Your task to perform on an android device: turn on data saver in the chrome app Image 0: 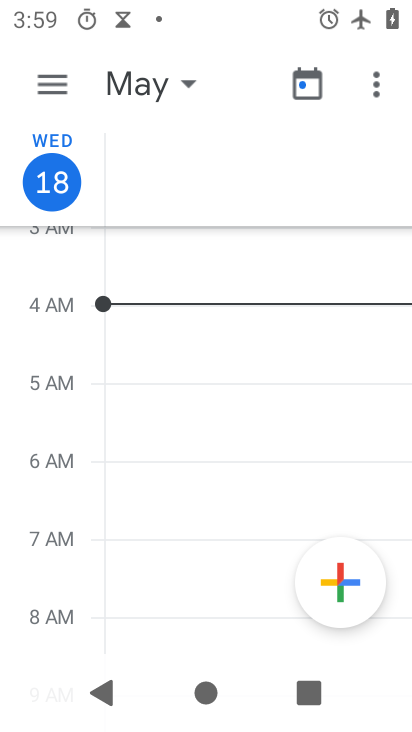
Step 0: press home button
Your task to perform on an android device: turn on data saver in the chrome app Image 1: 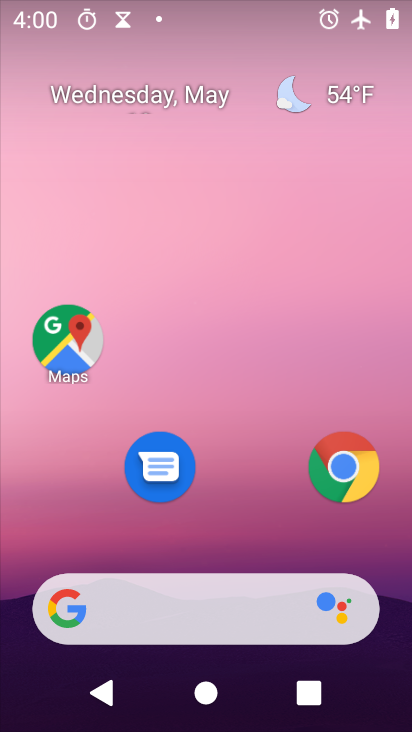
Step 1: click (355, 483)
Your task to perform on an android device: turn on data saver in the chrome app Image 2: 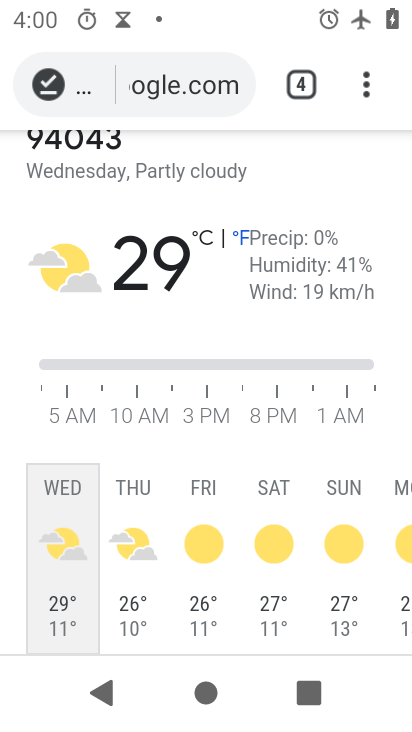
Step 2: click (368, 86)
Your task to perform on an android device: turn on data saver in the chrome app Image 3: 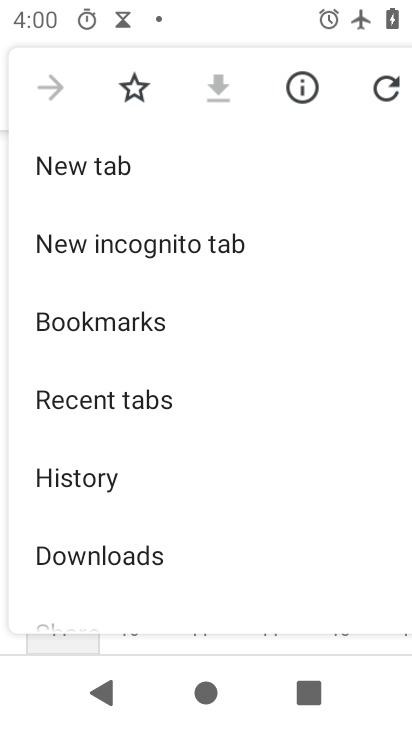
Step 3: drag from (305, 555) to (182, 121)
Your task to perform on an android device: turn on data saver in the chrome app Image 4: 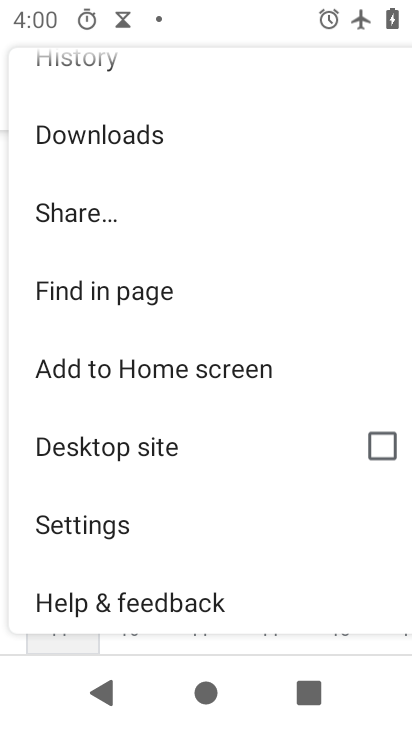
Step 4: click (196, 515)
Your task to perform on an android device: turn on data saver in the chrome app Image 5: 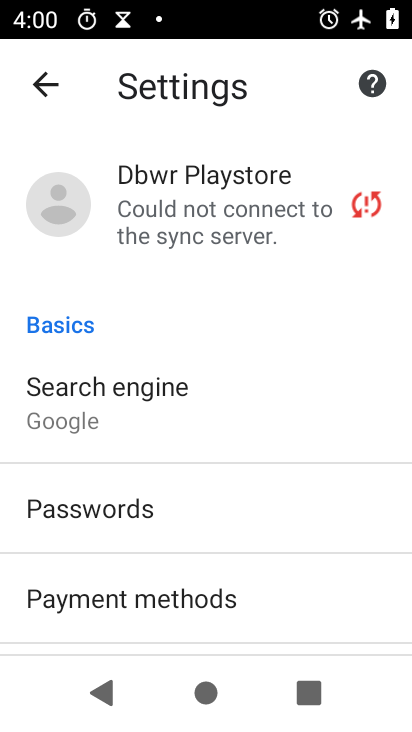
Step 5: drag from (305, 612) to (199, 205)
Your task to perform on an android device: turn on data saver in the chrome app Image 6: 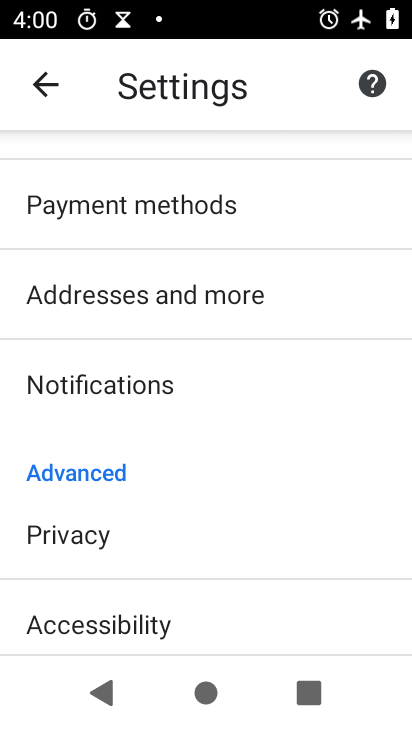
Step 6: drag from (237, 601) to (169, 268)
Your task to perform on an android device: turn on data saver in the chrome app Image 7: 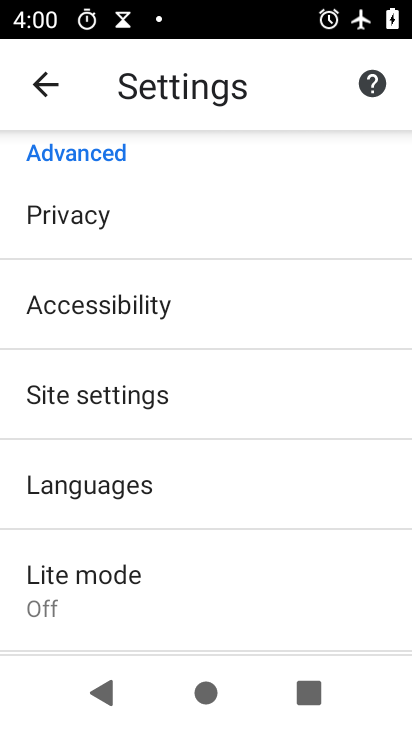
Step 7: click (229, 585)
Your task to perform on an android device: turn on data saver in the chrome app Image 8: 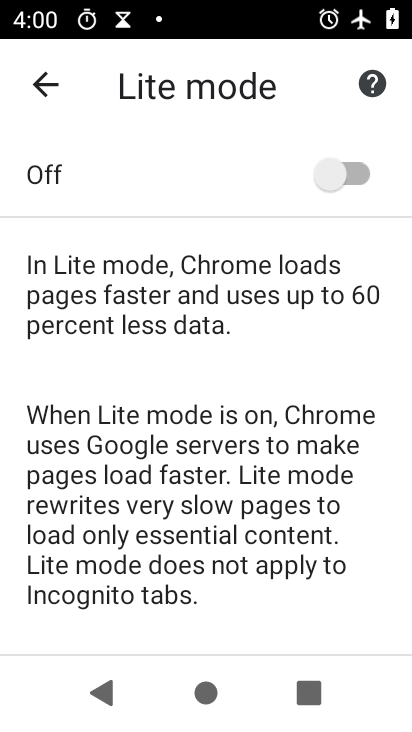
Step 8: task complete